Your task to perform on an android device: move an email to a new category in the gmail app Image 0: 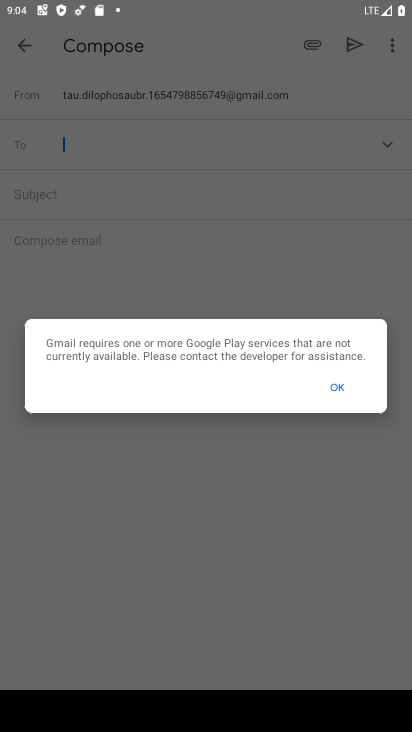
Step 0: press home button
Your task to perform on an android device: move an email to a new category in the gmail app Image 1: 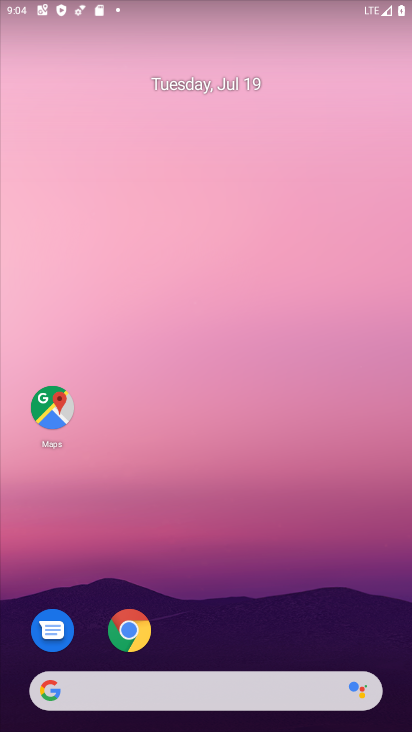
Step 1: drag from (200, 640) to (271, 25)
Your task to perform on an android device: move an email to a new category in the gmail app Image 2: 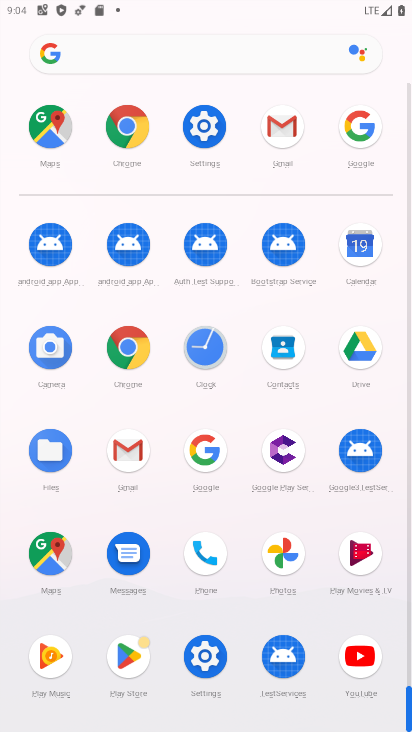
Step 2: click (120, 460)
Your task to perform on an android device: move an email to a new category in the gmail app Image 3: 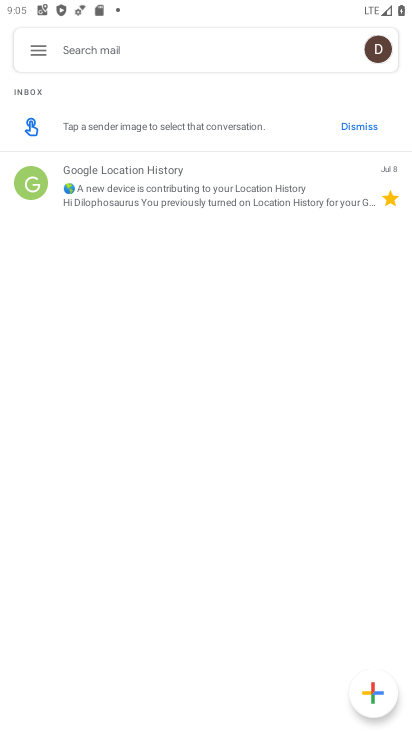
Step 3: click (44, 48)
Your task to perform on an android device: move an email to a new category in the gmail app Image 4: 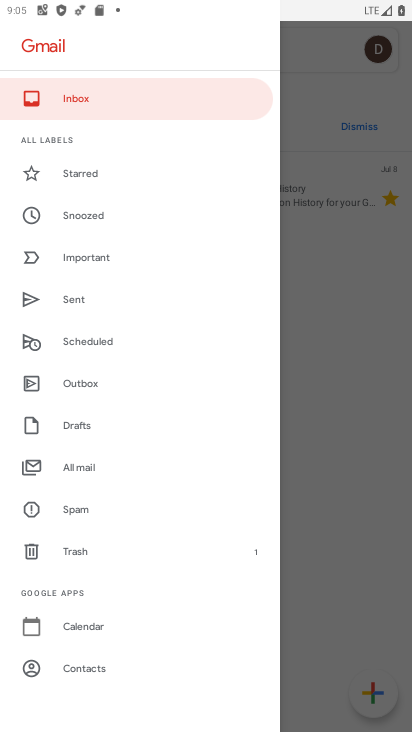
Step 4: click (95, 467)
Your task to perform on an android device: move an email to a new category in the gmail app Image 5: 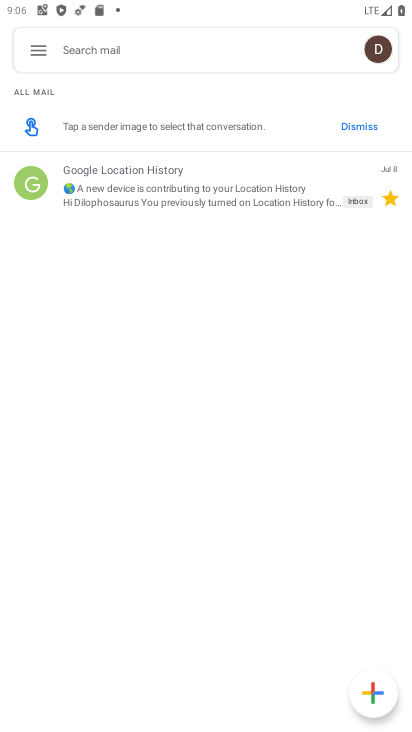
Step 5: click (141, 175)
Your task to perform on an android device: move an email to a new category in the gmail app Image 6: 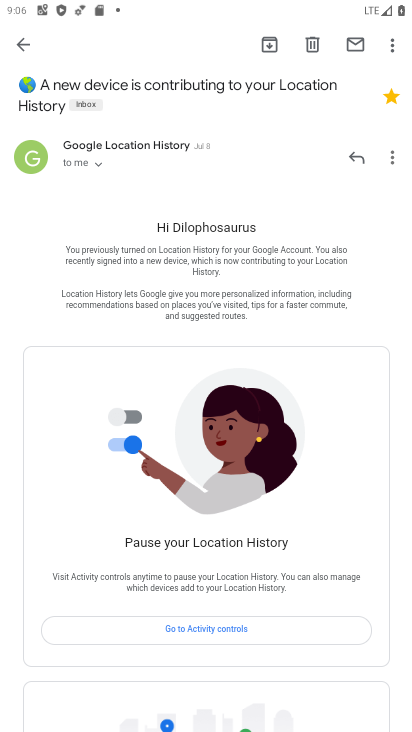
Step 6: click (388, 58)
Your task to perform on an android device: move an email to a new category in the gmail app Image 7: 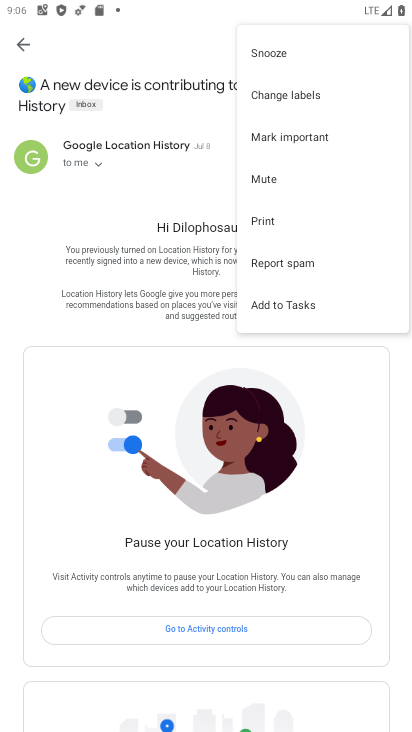
Step 7: click (300, 90)
Your task to perform on an android device: move an email to a new category in the gmail app Image 8: 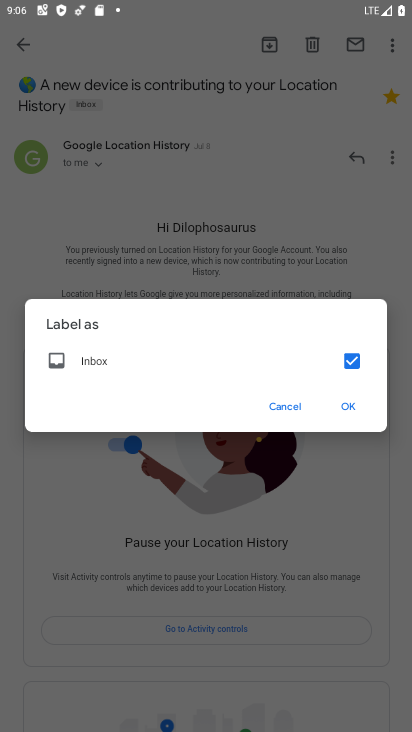
Step 8: click (352, 408)
Your task to perform on an android device: move an email to a new category in the gmail app Image 9: 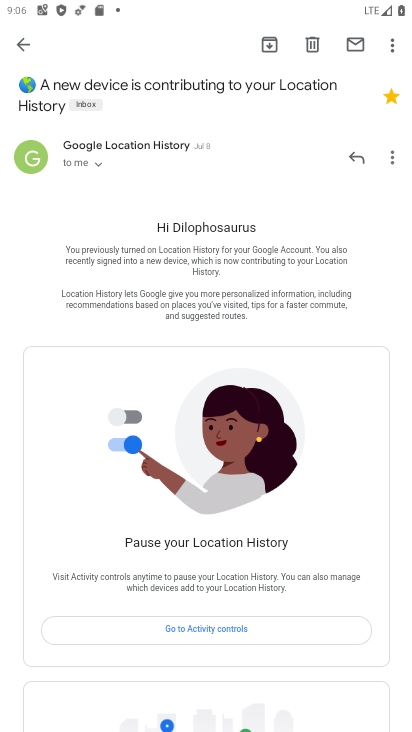
Step 9: task complete